Your task to perform on an android device: Go to wifi settings Image 0: 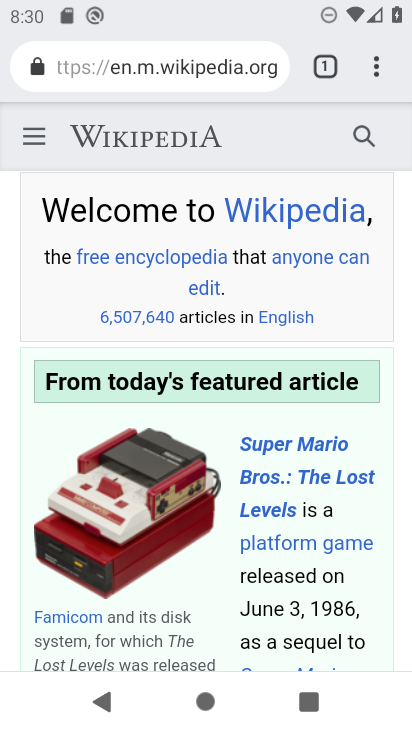
Step 0: press home button
Your task to perform on an android device: Go to wifi settings Image 1: 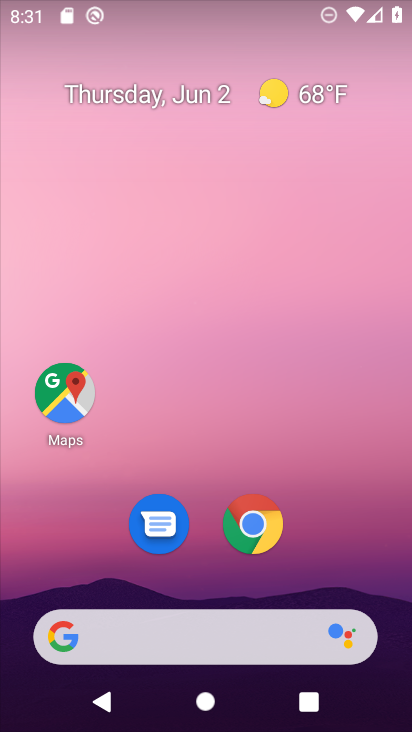
Step 1: drag from (214, 441) to (260, 12)
Your task to perform on an android device: Go to wifi settings Image 2: 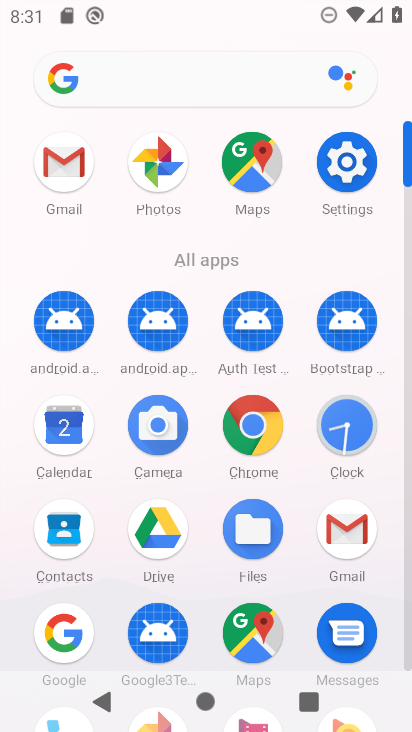
Step 2: click (348, 159)
Your task to perform on an android device: Go to wifi settings Image 3: 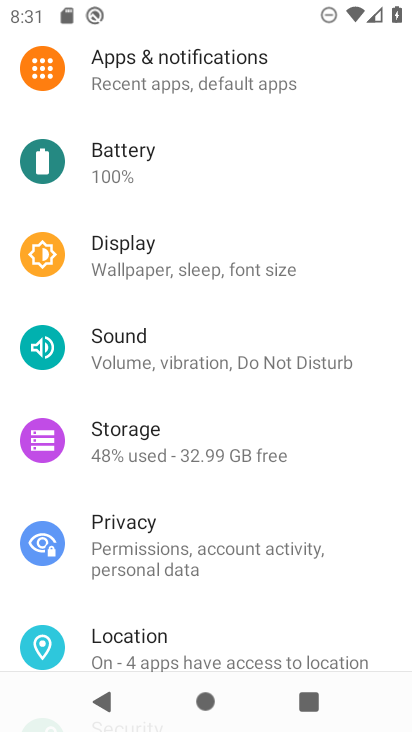
Step 3: drag from (229, 195) to (198, 500)
Your task to perform on an android device: Go to wifi settings Image 4: 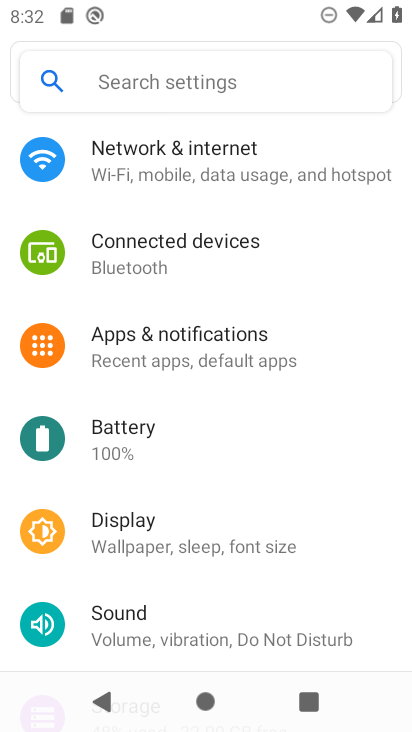
Step 4: click (259, 165)
Your task to perform on an android device: Go to wifi settings Image 5: 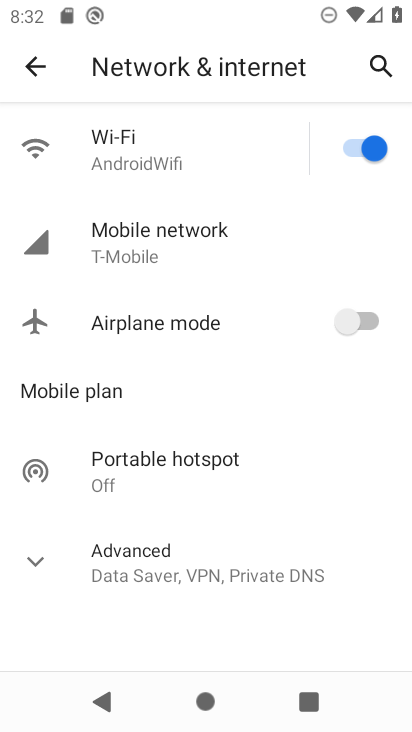
Step 5: click (160, 158)
Your task to perform on an android device: Go to wifi settings Image 6: 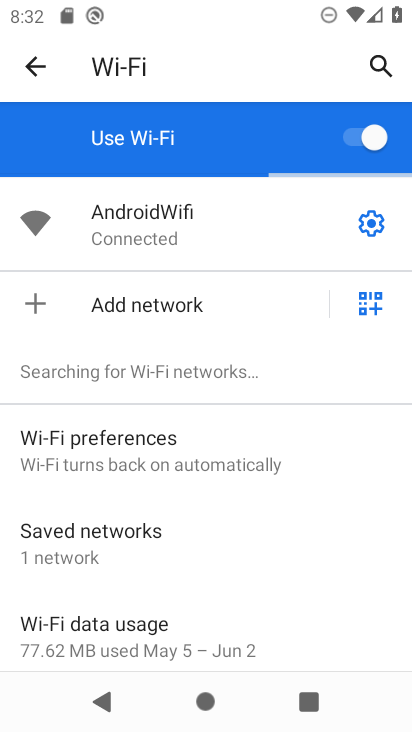
Step 6: task complete